Your task to perform on an android device: add a contact Image 0: 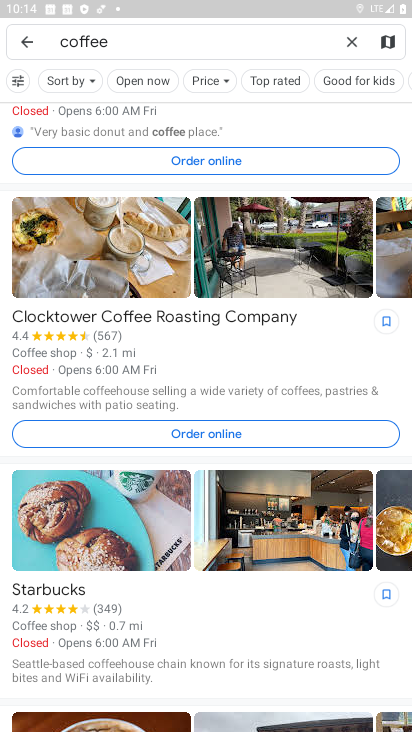
Step 0: drag from (251, 540) to (247, 63)
Your task to perform on an android device: add a contact Image 1: 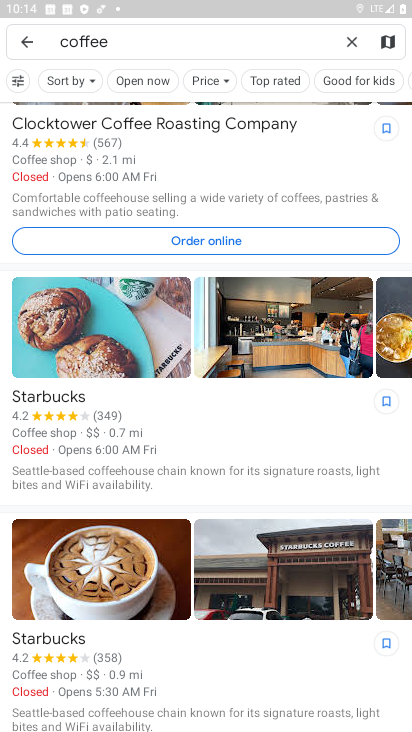
Step 1: drag from (247, 633) to (213, 198)
Your task to perform on an android device: add a contact Image 2: 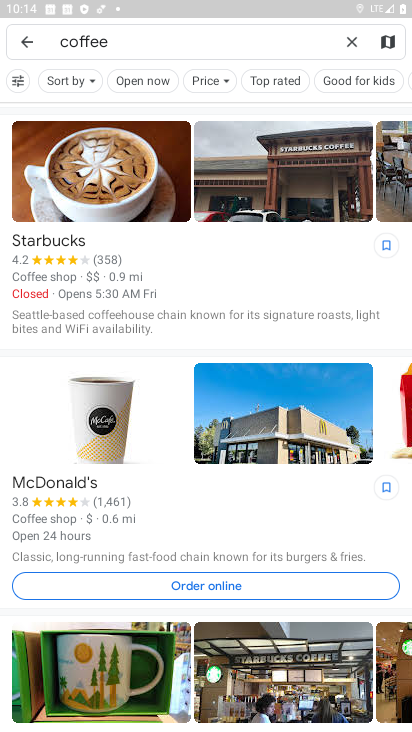
Step 2: drag from (267, 556) to (254, 119)
Your task to perform on an android device: add a contact Image 3: 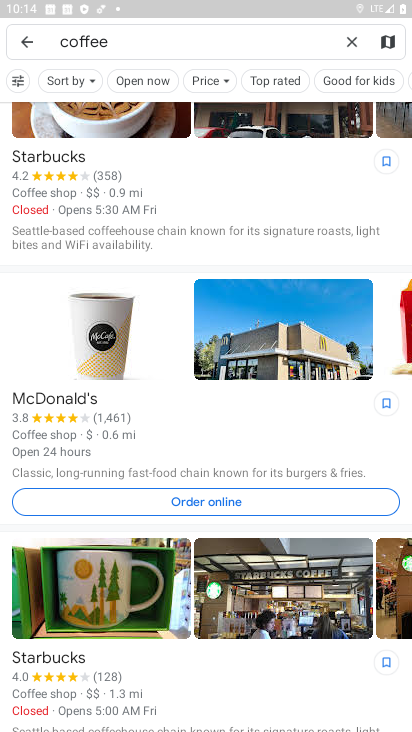
Step 3: drag from (258, 640) to (311, 75)
Your task to perform on an android device: add a contact Image 4: 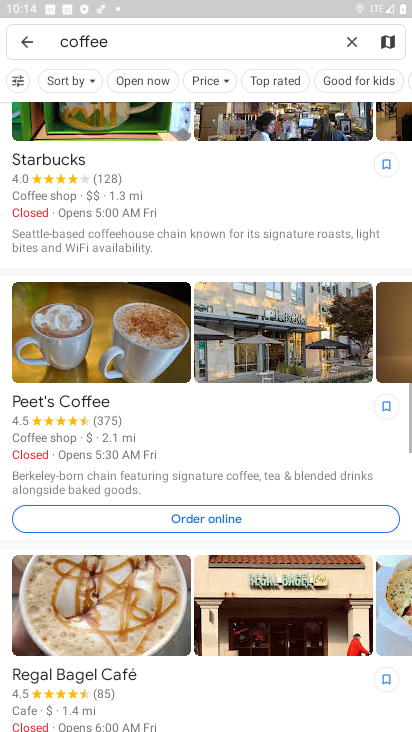
Step 4: drag from (228, 642) to (221, 432)
Your task to perform on an android device: add a contact Image 5: 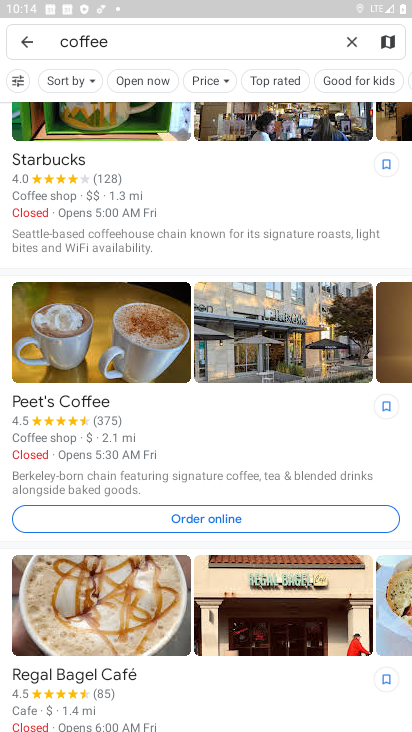
Step 5: drag from (181, 667) to (191, 410)
Your task to perform on an android device: add a contact Image 6: 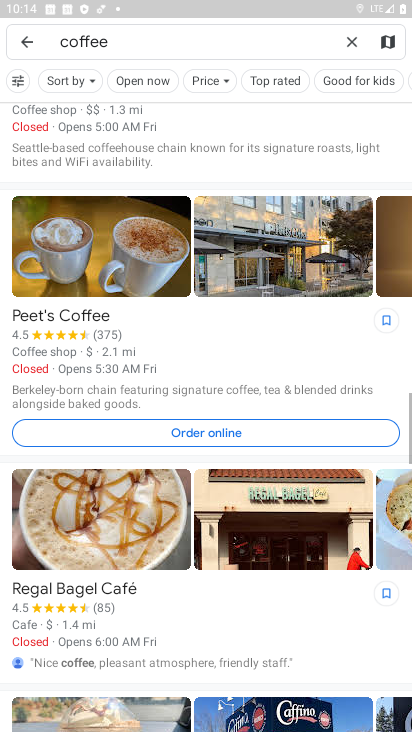
Step 6: drag from (209, 611) to (209, 322)
Your task to perform on an android device: add a contact Image 7: 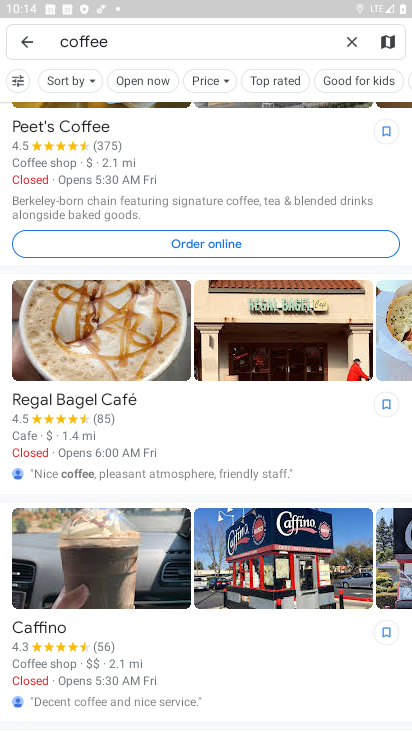
Step 7: drag from (171, 667) to (171, 447)
Your task to perform on an android device: add a contact Image 8: 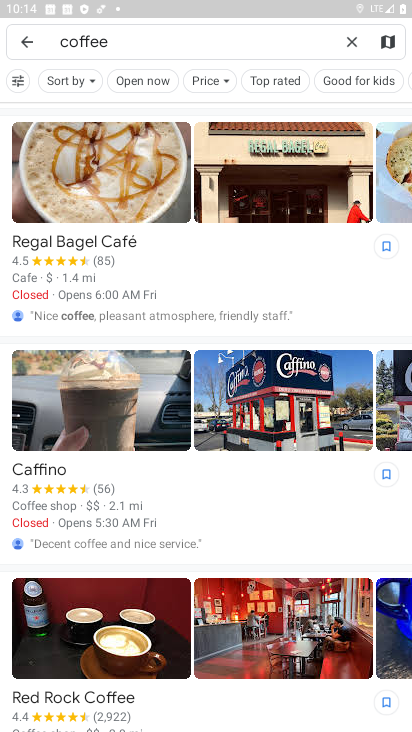
Step 8: drag from (207, 615) to (213, 384)
Your task to perform on an android device: add a contact Image 9: 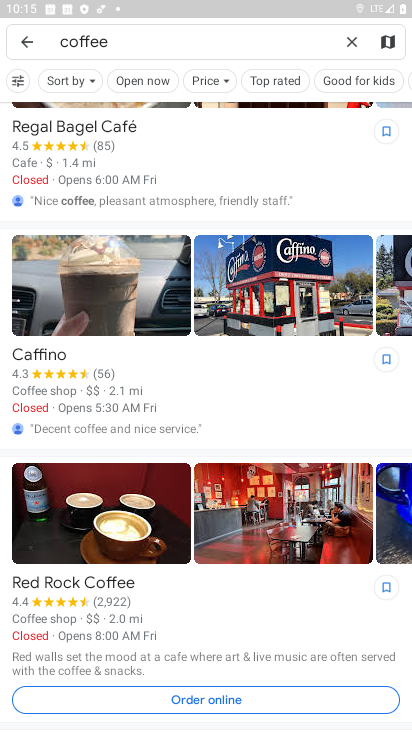
Step 9: drag from (236, 658) to (267, 435)
Your task to perform on an android device: add a contact Image 10: 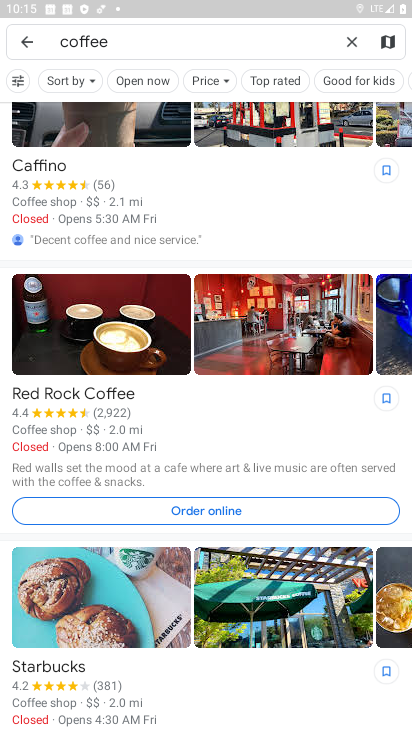
Step 10: drag from (278, 637) to (272, 444)
Your task to perform on an android device: add a contact Image 11: 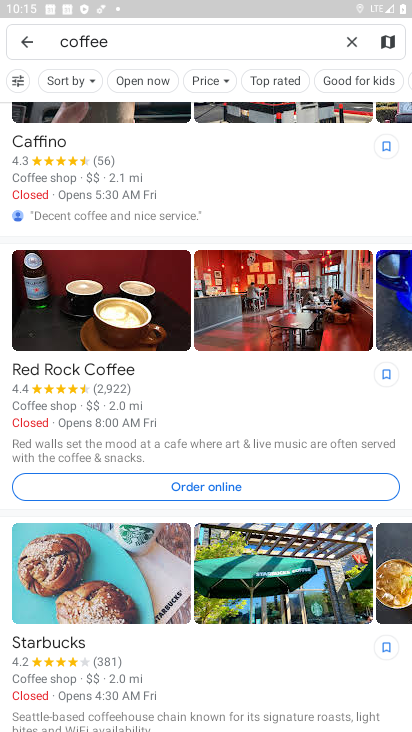
Step 11: drag from (185, 665) to (206, 276)
Your task to perform on an android device: add a contact Image 12: 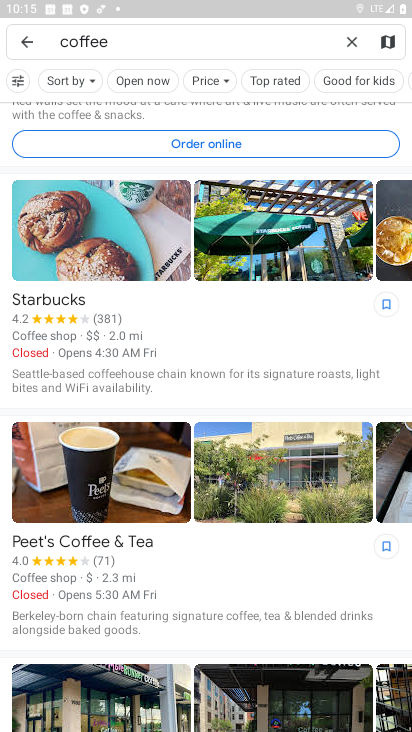
Step 12: drag from (230, 545) to (266, 273)
Your task to perform on an android device: add a contact Image 13: 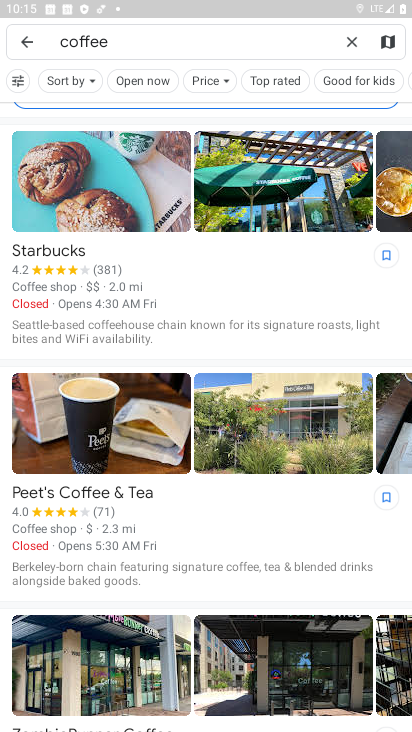
Step 13: drag from (227, 527) to (220, 326)
Your task to perform on an android device: add a contact Image 14: 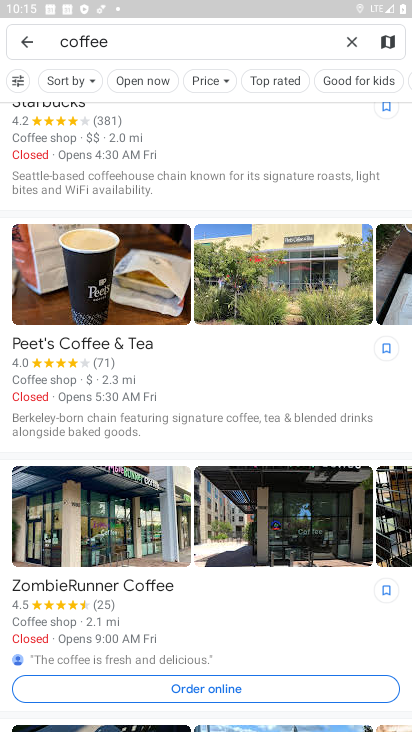
Step 14: drag from (216, 624) to (222, 353)
Your task to perform on an android device: add a contact Image 15: 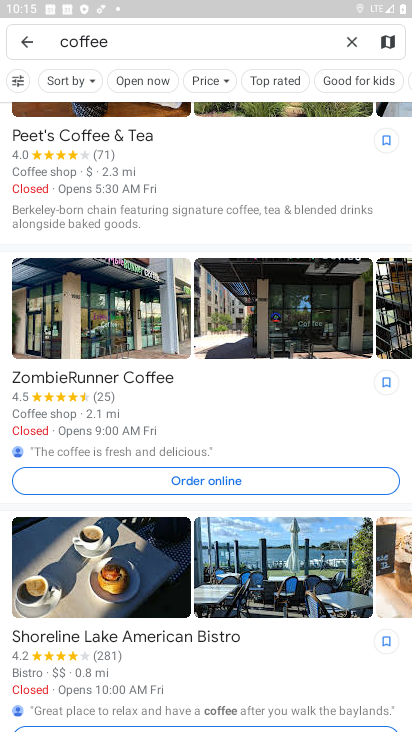
Step 15: drag from (216, 682) to (255, 385)
Your task to perform on an android device: add a contact Image 16: 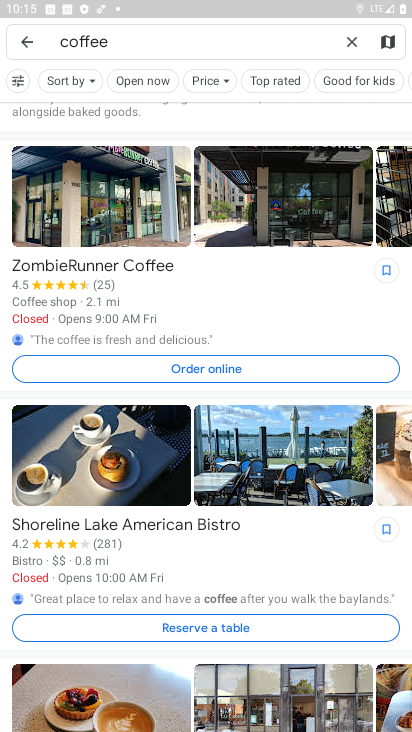
Step 16: drag from (267, 607) to (215, 322)
Your task to perform on an android device: add a contact Image 17: 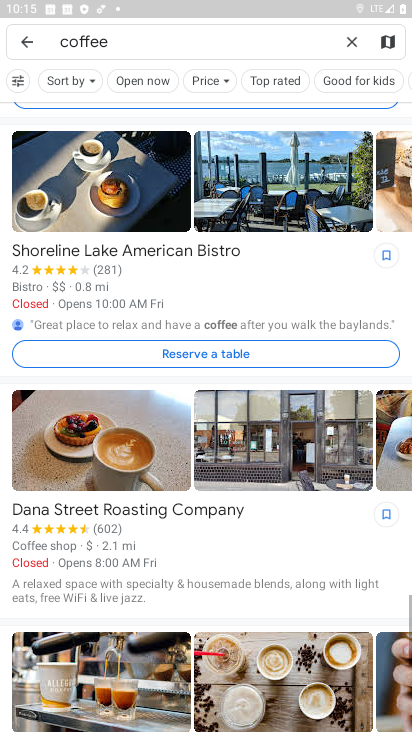
Step 17: drag from (247, 646) to (244, 421)
Your task to perform on an android device: add a contact Image 18: 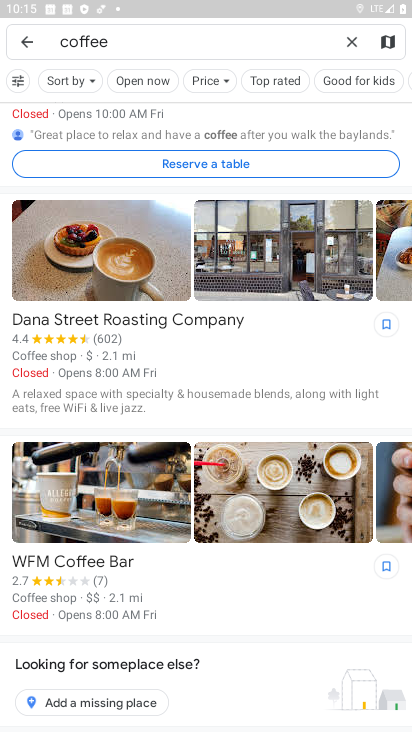
Step 18: drag from (262, 334) to (338, 677)
Your task to perform on an android device: add a contact Image 19: 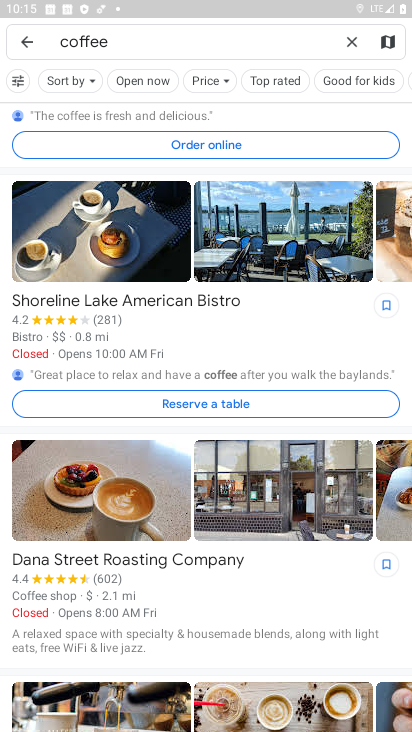
Step 19: press home button
Your task to perform on an android device: add a contact Image 20: 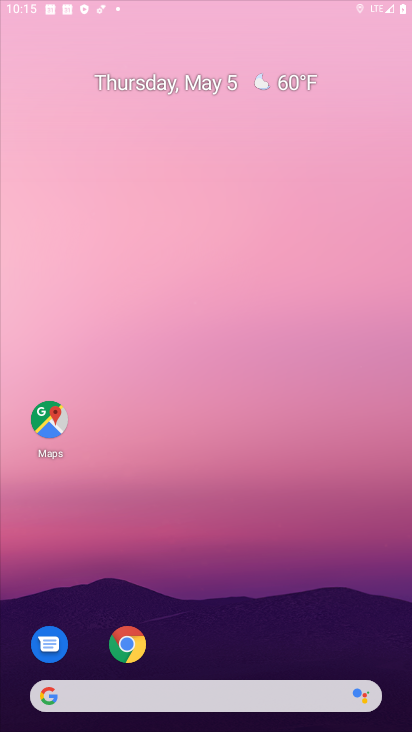
Step 20: drag from (197, 649) to (226, 482)
Your task to perform on an android device: add a contact Image 21: 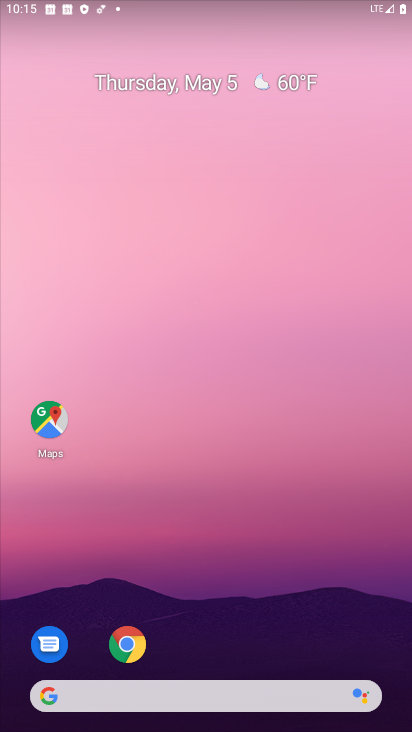
Step 21: drag from (205, 623) to (162, 261)
Your task to perform on an android device: add a contact Image 22: 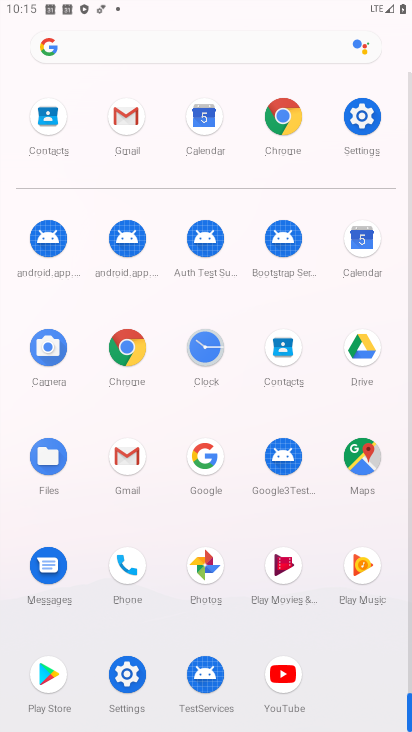
Step 22: drag from (230, 627) to (230, 261)
Your task to perform on an android device: add a contact Image 23: 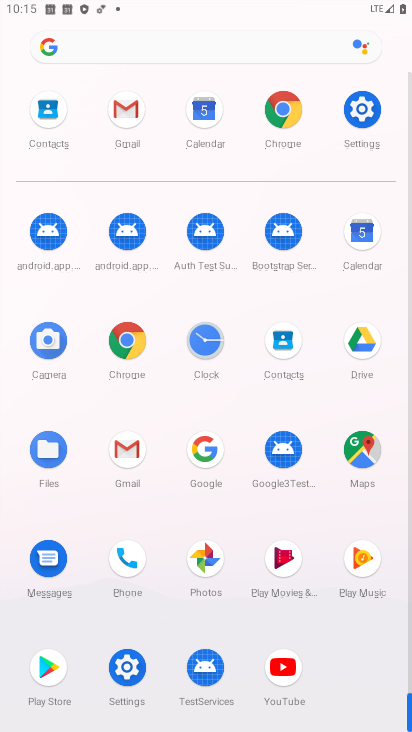
Step 23: drag from (240, 650) to (220, 227)
Your task to perform on an android device: add a contact Image 24: 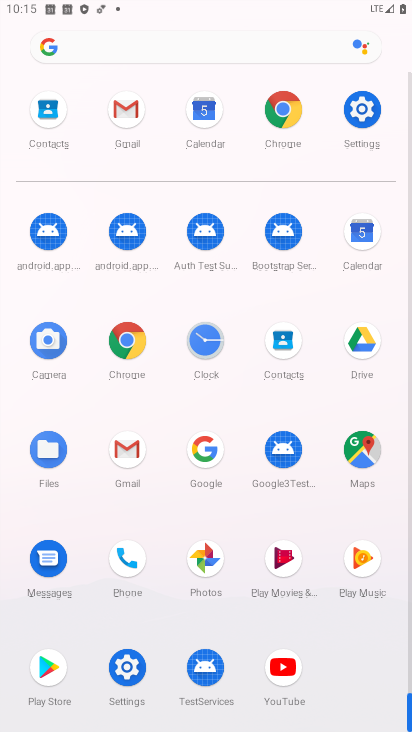
Step 24: drag from (229, 481) to (212, 241)
Your task to perform on an android device: add a contact Image 25: 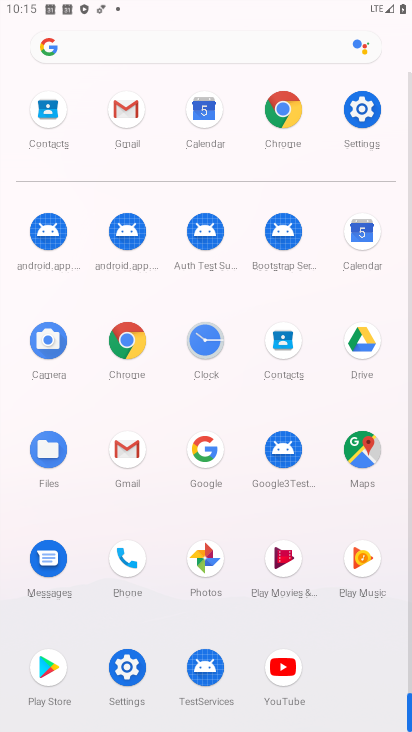
Step 25: drag from (245, 619) to (238, 301)
Your task to perform on an android device: add a contact Image 26: 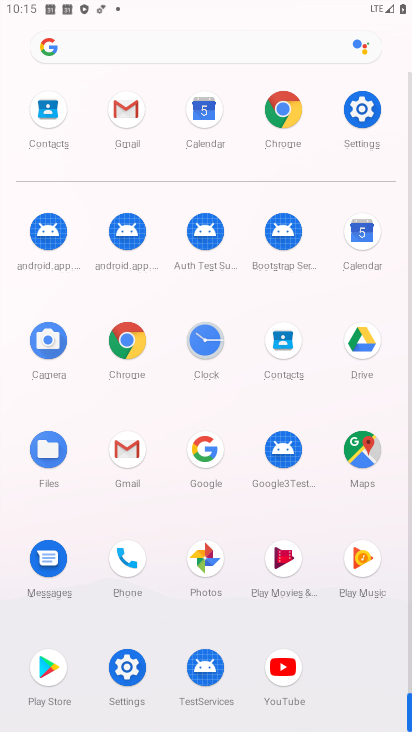
Step 26: drag from (240, 632) to (298, 245)
Your task to perform on an android device: add a contact Image 27: 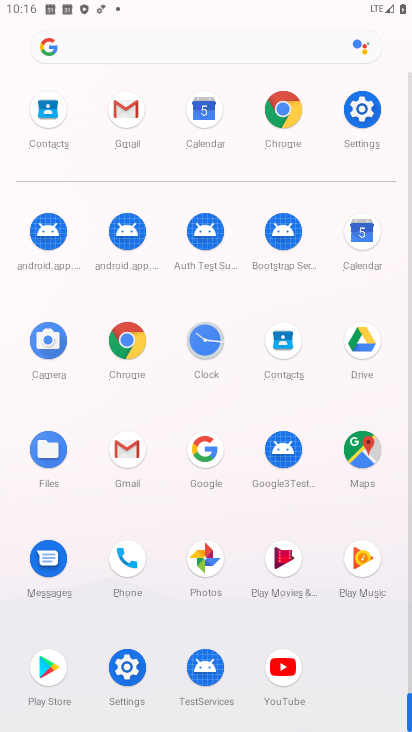
Step 27: click (291, 343)
Your task to perform on an android device: add a contact Image 28: 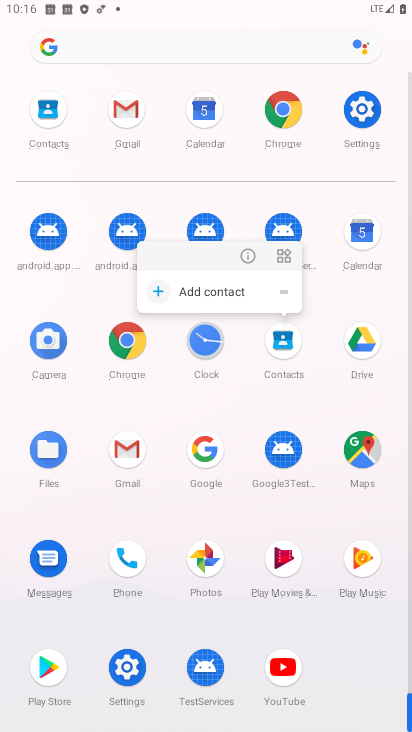
Step 28: click (237, 253)
Your task to perform on an android device: add a contact Image 29: 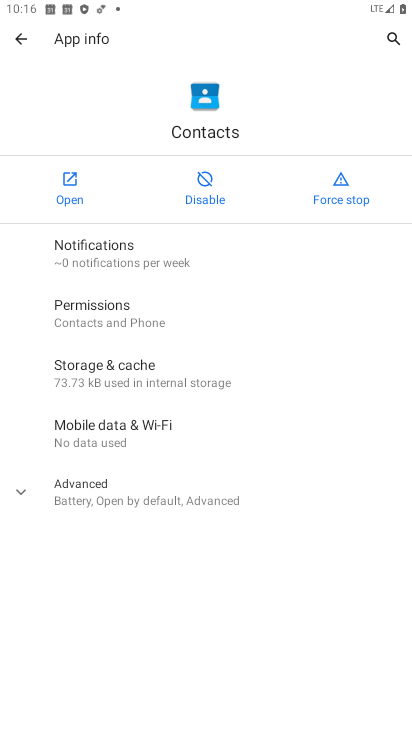
Step 29: click (70, 191)
Your task to perform on an android device: add a contact Image 30: 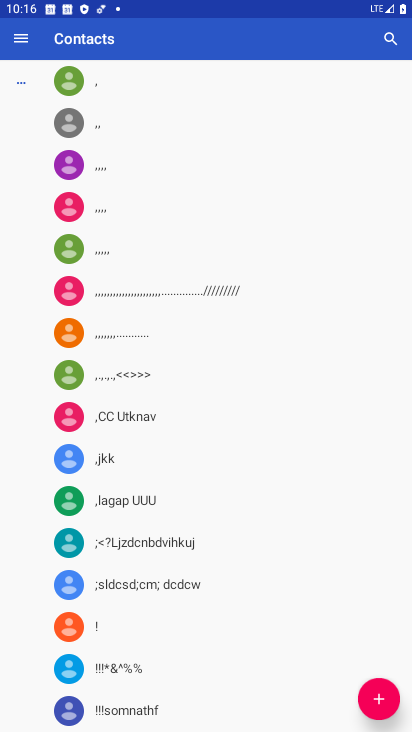
Step 30: drag from (220, 640) to (229, 215)
Your task to perform on an android device: add a contact Image 31: 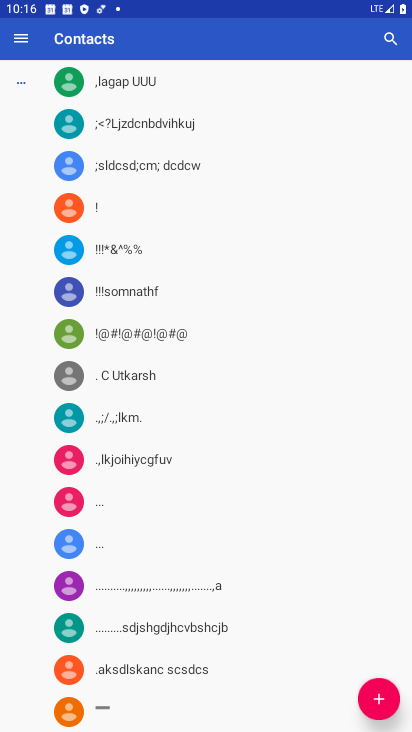
Step 31: click (381, 702)
Your task to perform on an android device: add a contact Image 32: 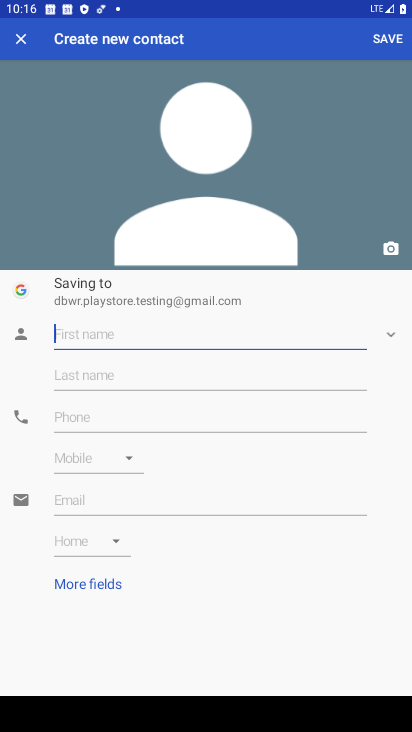
Step 32: click (178, 342)
Your task to perform on an android device: add a contact Image 33: 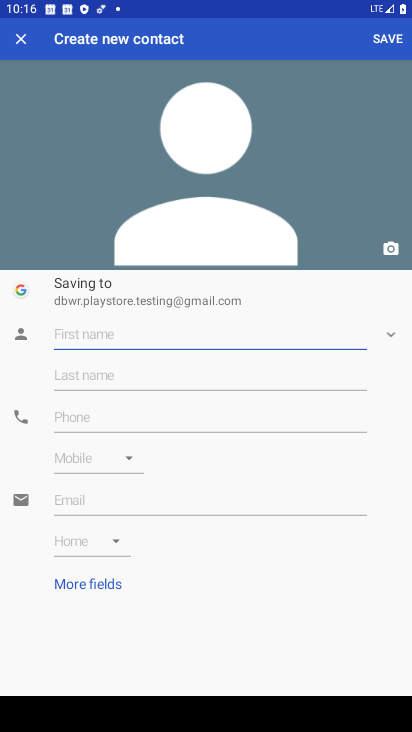
Step 33: type ""
Your task to perform on an android device: add a contact Image 34: 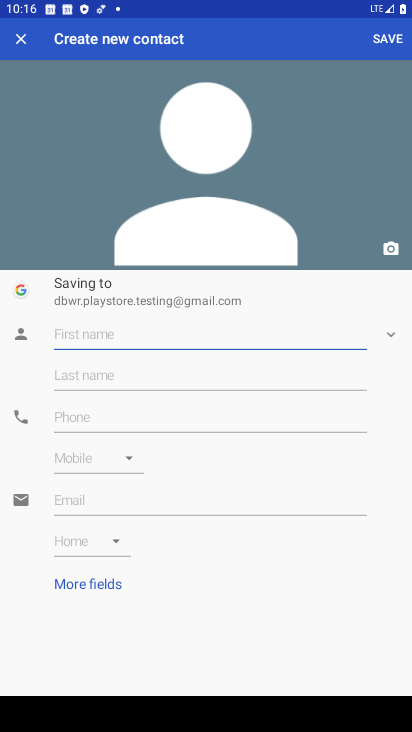
Step 34: type "khjl"
Your task to perform on an android device: add a contact Image 35: 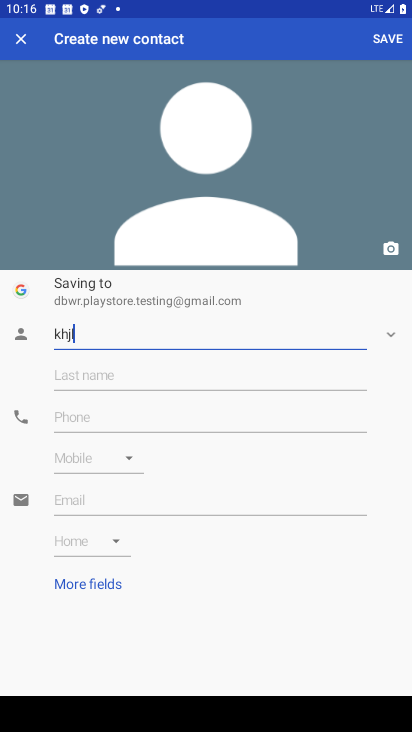
Step 35: click (385, 32)
Your task to perform on an android device: add a contact Image 36: 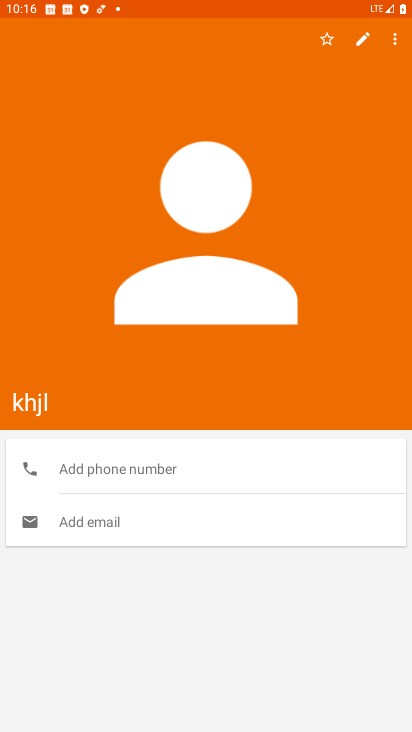
Step 36: task complete